Your task to perform on an android device: Open display settings Image 0: 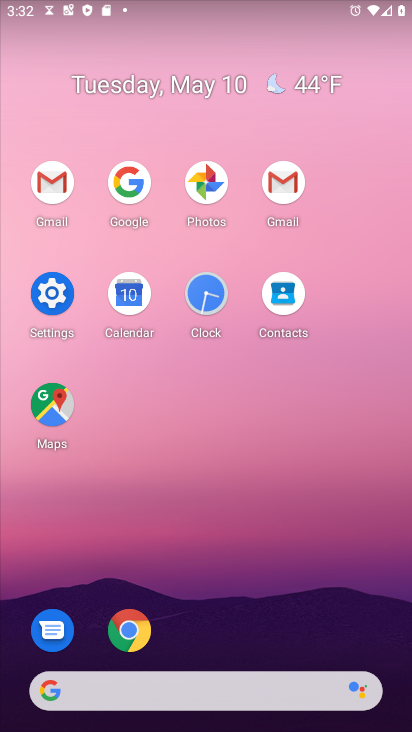
Step 0: click (44, 295)
Your task to perform on an android device: Open display settings Image 1: 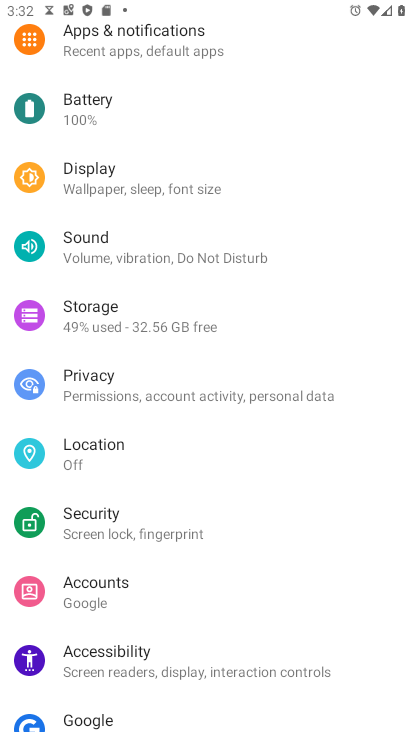
Step 1: click (128, 174)
Your task to perform on an android device: Open display settings Image 2: 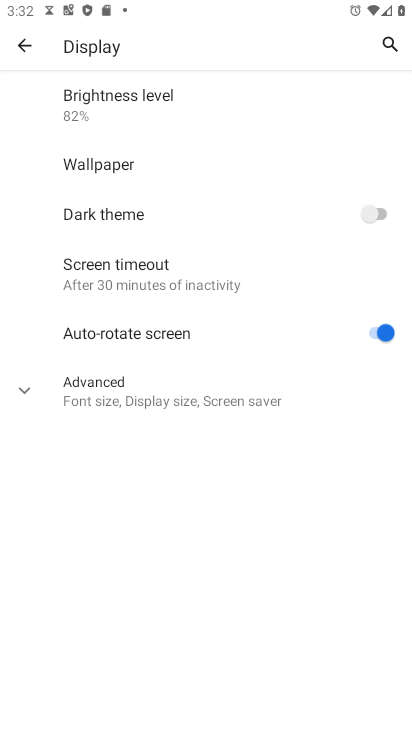
Step 2: task complete